Your task to perform on an android device: open app "Messenger Lite" Image 0: 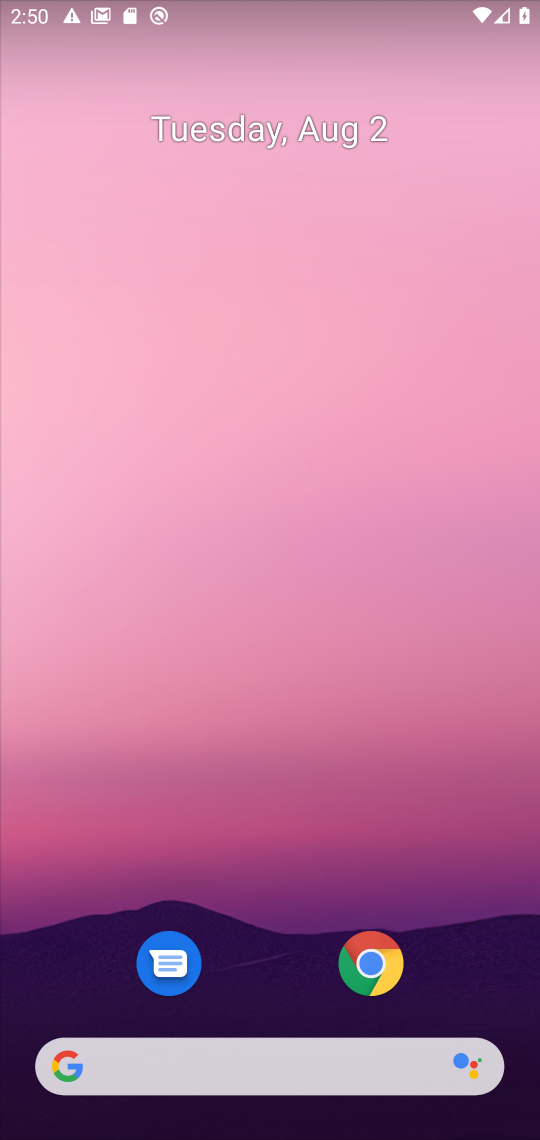
Step 0: drag from (281, 1029) to (303, 288)
Your task to perform on an android device: open app "Messenger Lite" Image 1: 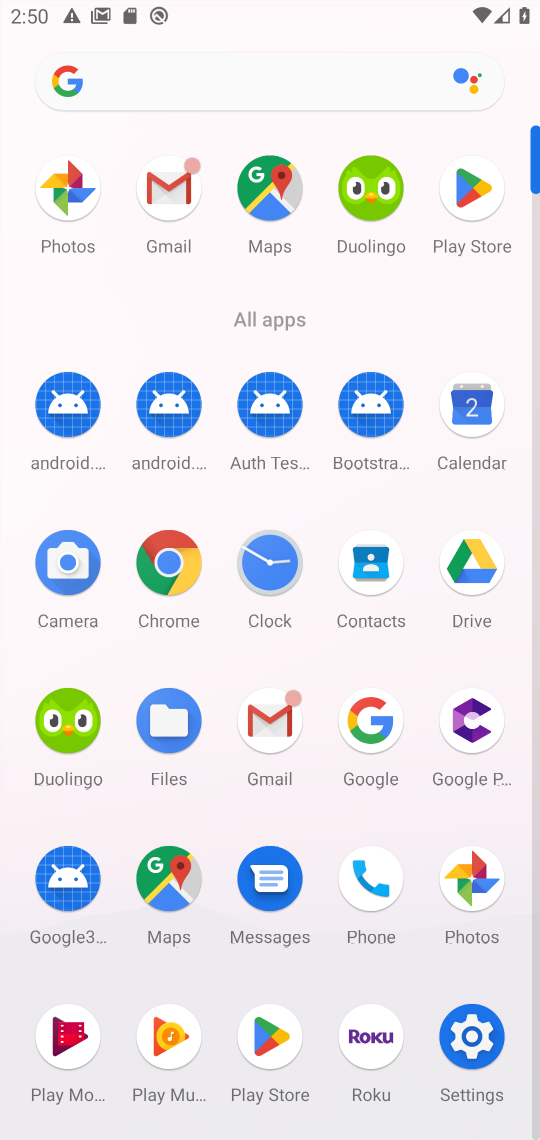
Step 1: click (473, 261)
Your task to perform on an android device: open app "Messenger Lite" Image 2: 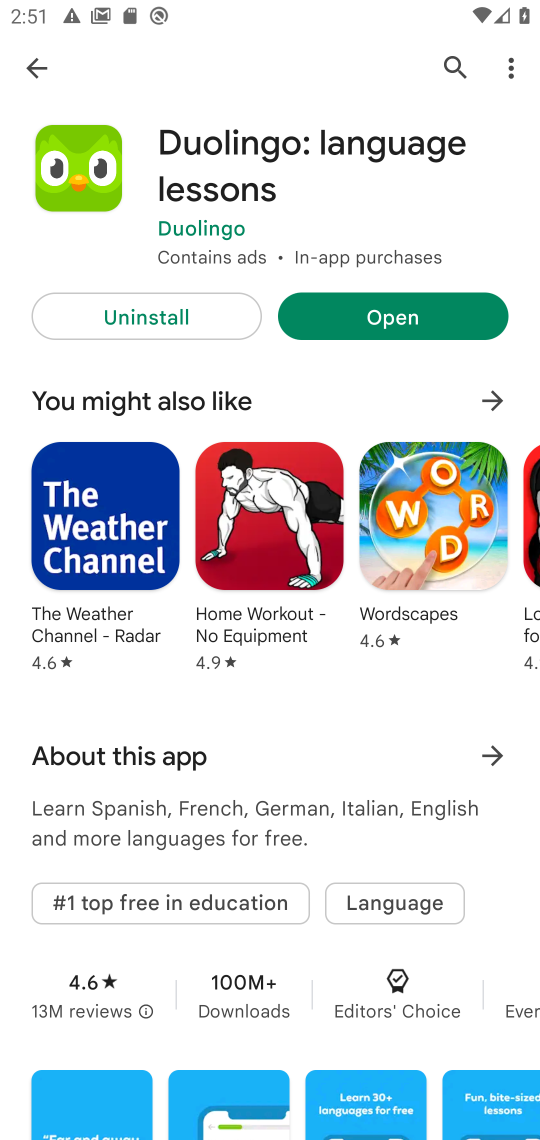
Step 2: click (452, 62)
Your task to perform on an android device: open app "Messenger Lite" Image 3: 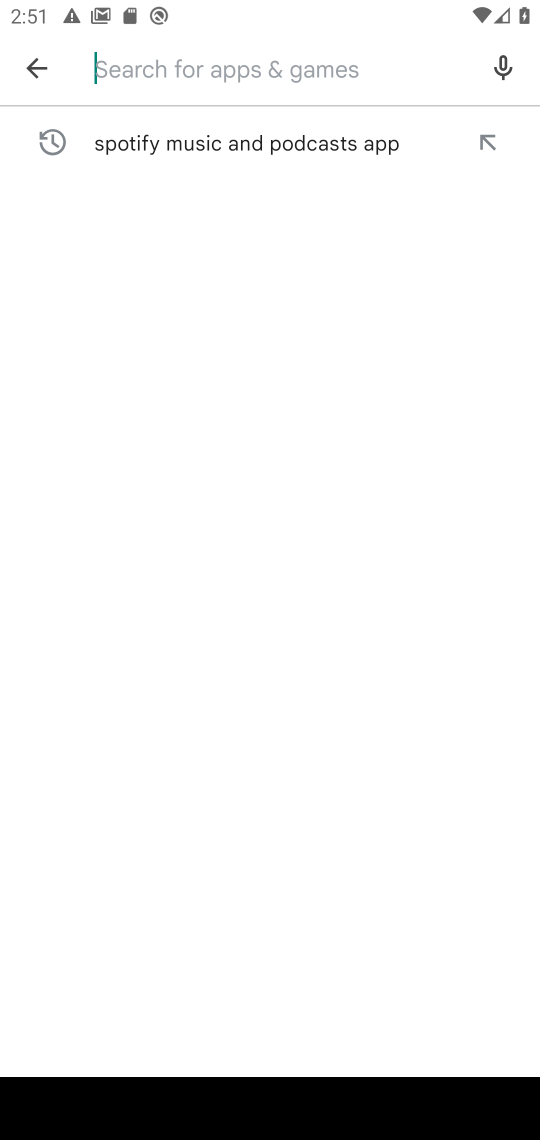
Step 3: type "Messenger Lite"
Your task to perform on an android device: open app "Messenger Lite" Image 4: 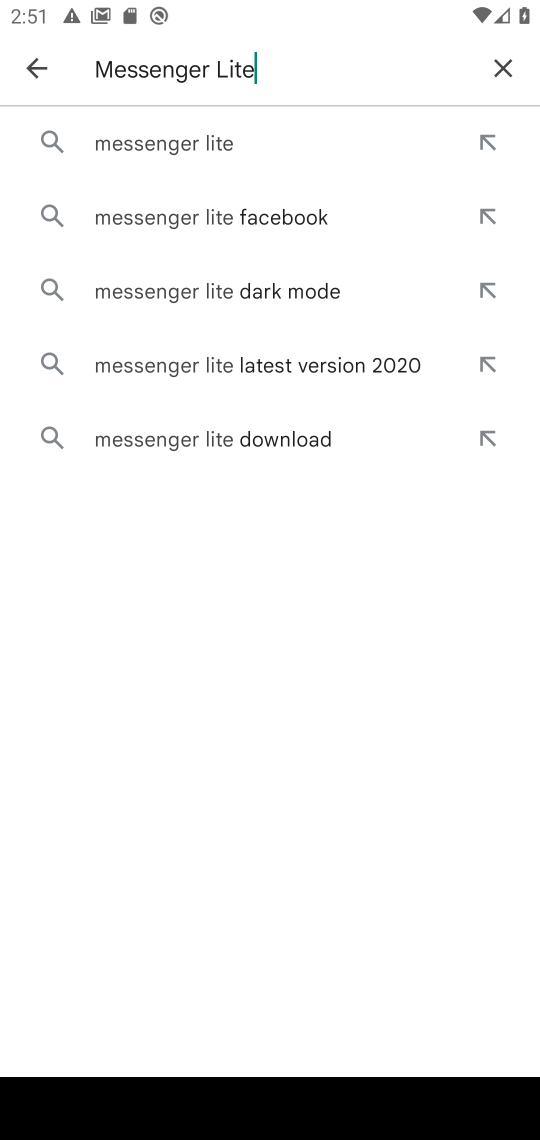
Step 4: click (165, 139)
Your task to perform on an android device: open app "Messenger Lite" Image 5: 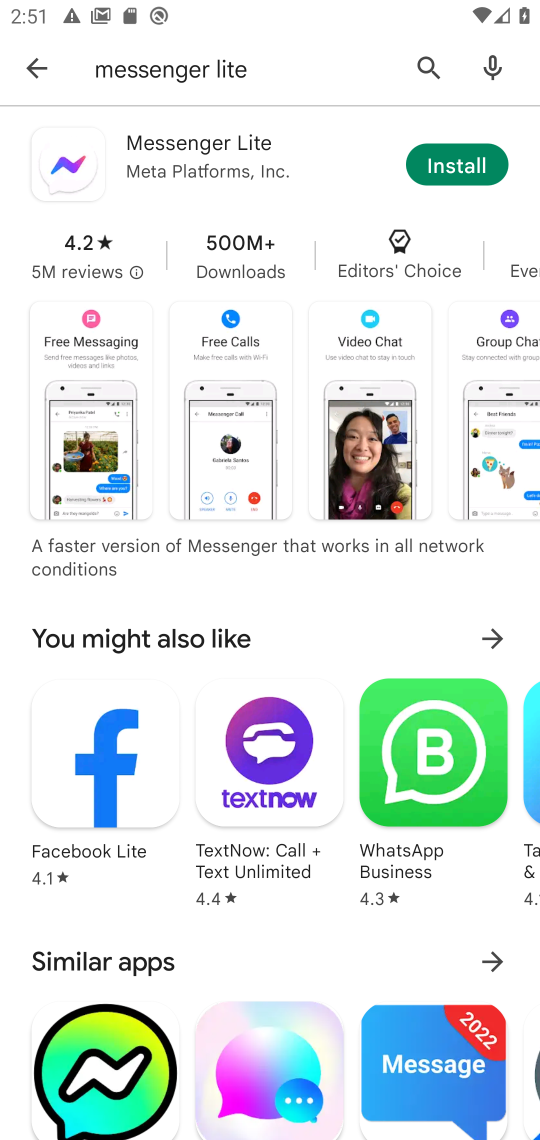
Step 5: click (462, 152)
Your task to perform on an android device: open app "Messenger Lite" Image 6: 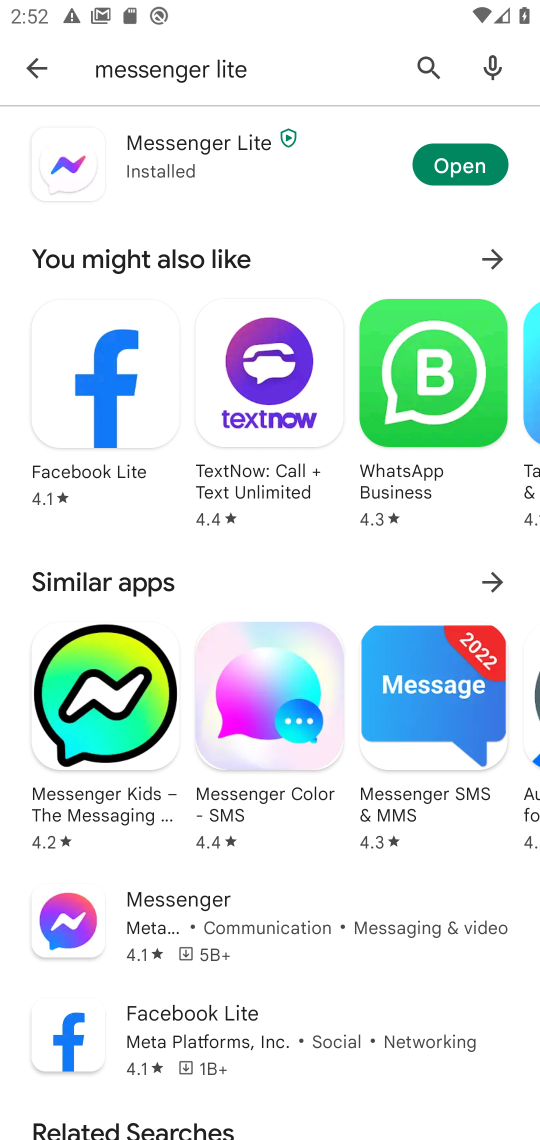
Step 6: click (473, 169)
Your task to perform on an android device: open app "Messenger Lite" Image 7: 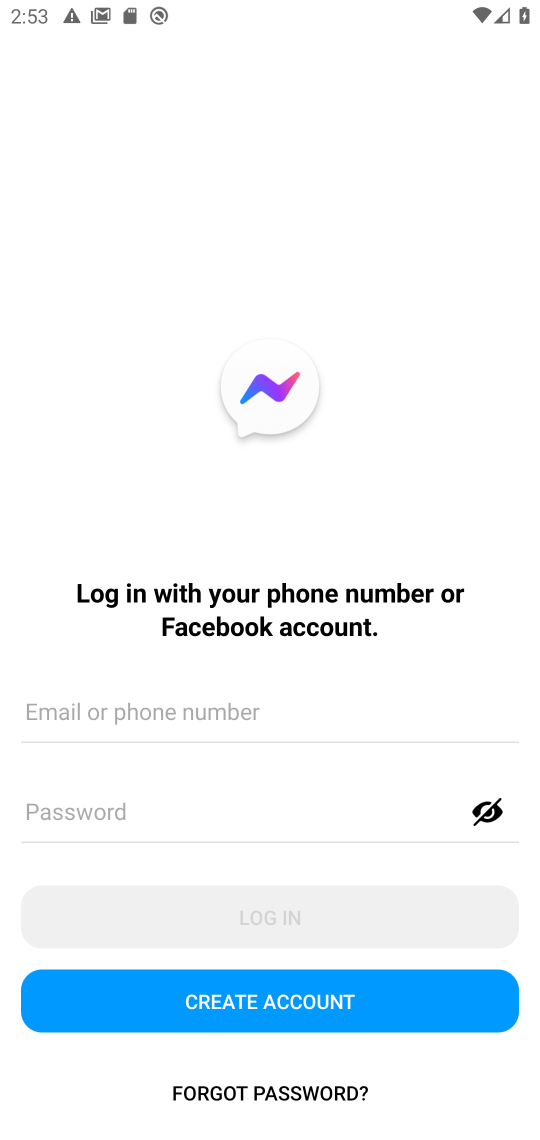
Step 7: task complete